Your task to perform on an android device: Open Wikipedia Image 0: 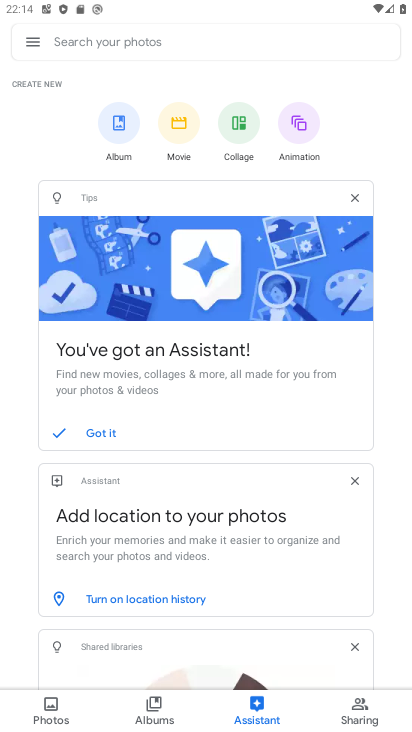
Step 0: press home button
Your task to perform on an android device: Open Wikipedia Image 1: 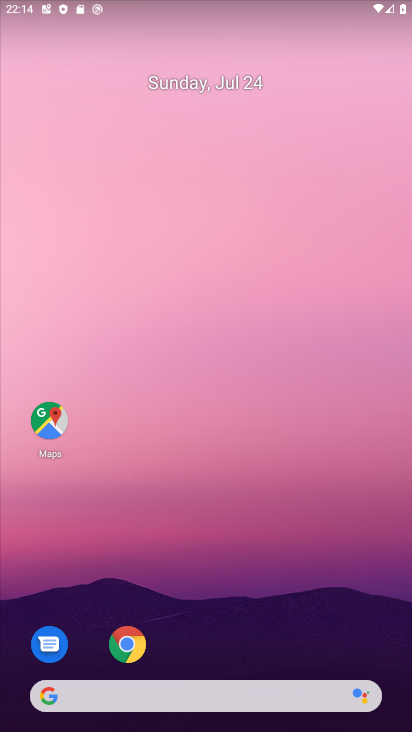
Step 1: click (127, 645)
Your task to perform on an android device: Open Wikipedia Image 2: 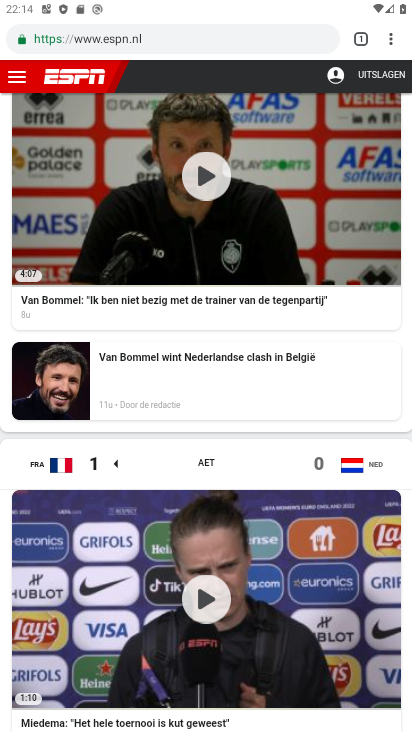
Step 2: drag from (272, 186) to (276, 433)
Your task to perform on an android device: Open Wikipedia Image 3: 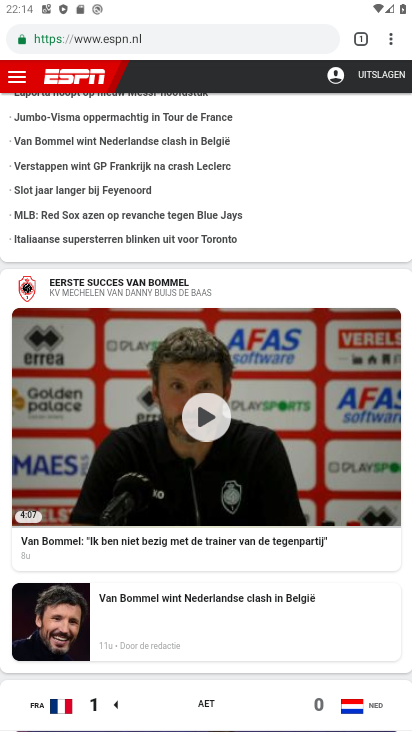
Step 3: click (170, 42)
Your task to perform on an android device: Open Wikipedia Image 4: 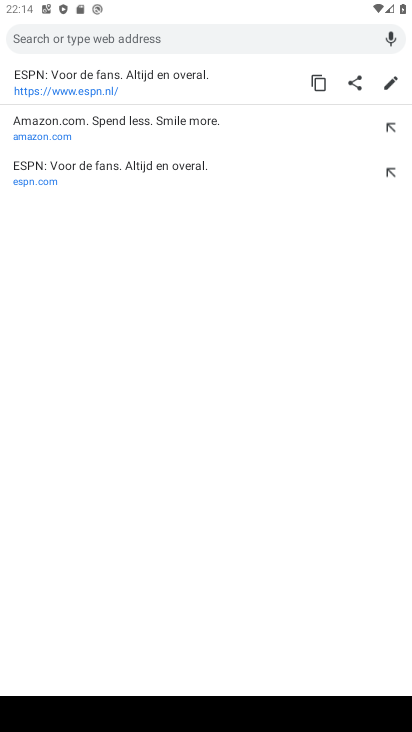
Step 4: type "wikipedia"
Your task to perform on an android device: Open Wikipedia Image 5: 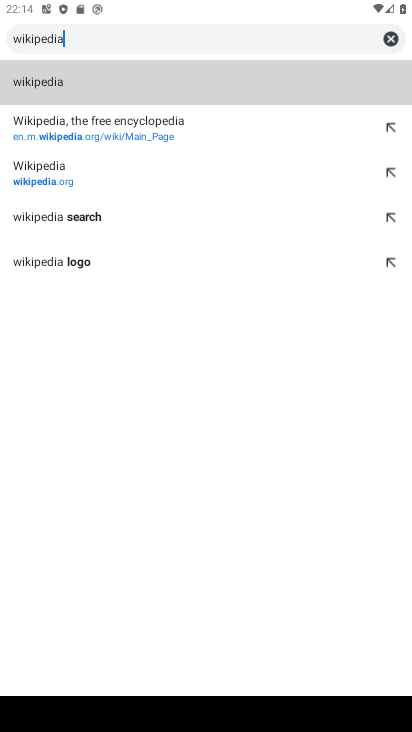
Step 5: click (43, 82)
Your task to perform on an android device: Open Wikipedia Image 6: 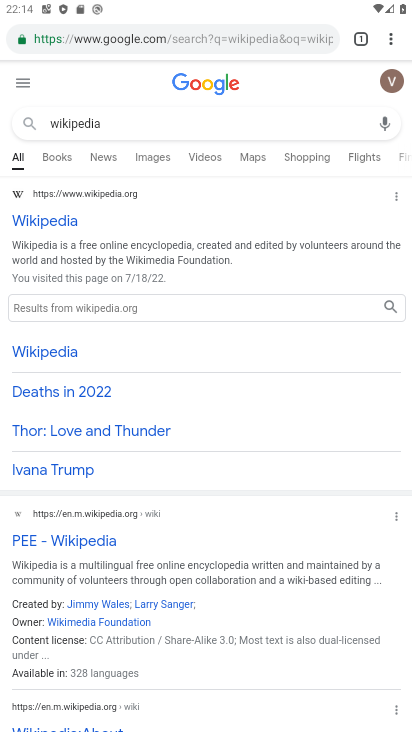
Step 6: click (46, 215)
Your task to perform on an android device: Open Wikipedia Image 7: 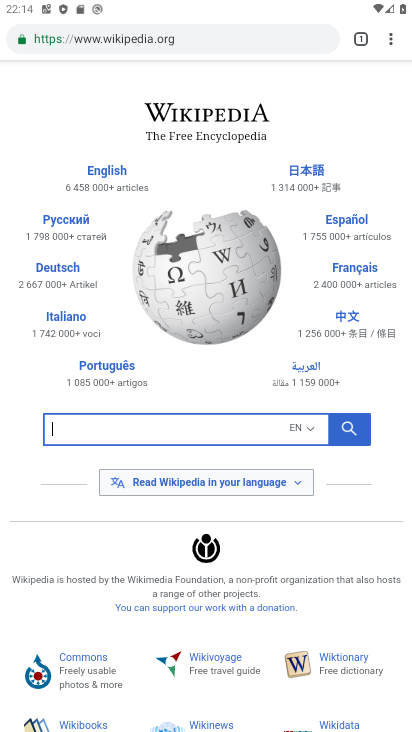
Step 7: task complete